Your task to perform on an android device: toggle improve location accuracy Image 0: 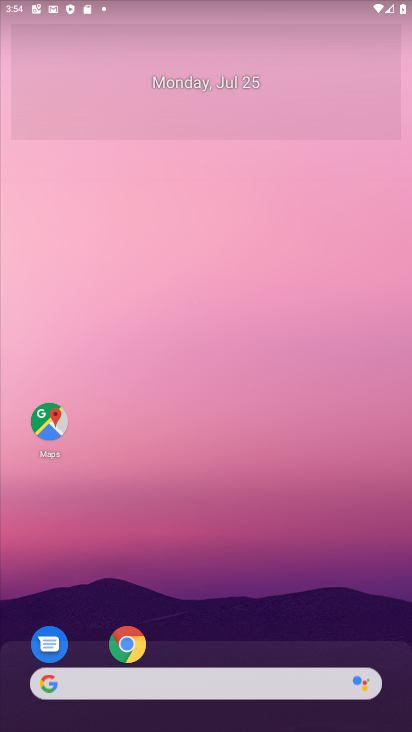
Step 0: press home button
Your task to perform on an android device: toggle improve location accuracy Image 1: 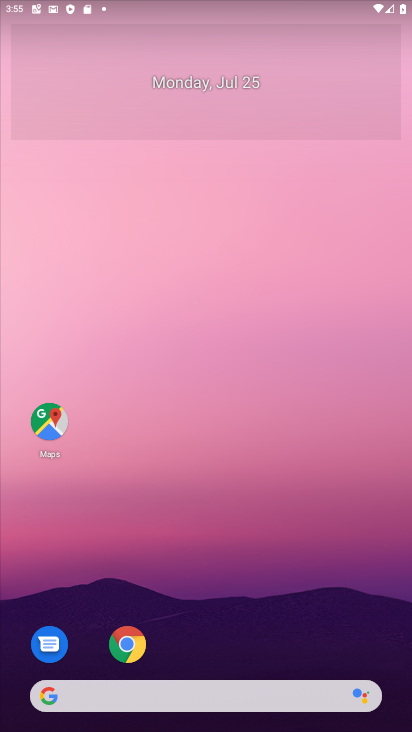
Step 1: drag from (241, 652) to (237, 69)
Your task to perform on an android device: toggle improve location accuracy Image 2: 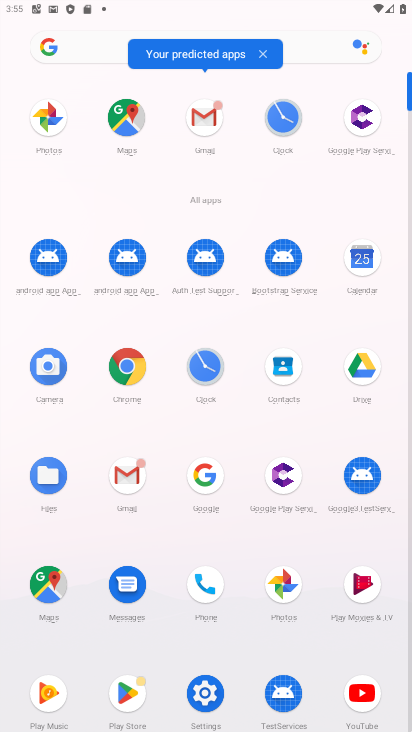
Step 2: click (206, 684)
Your task to perform on an android device: toggle improve location accuracy Image 3: 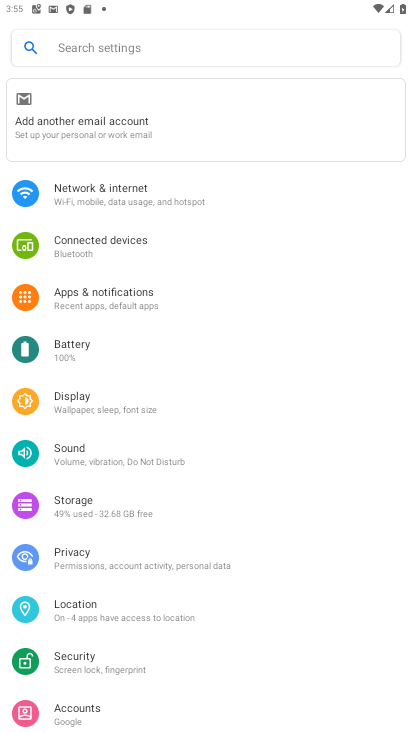
Step 3: click (100, 610)
Your task to perform on an android device: toggle improve location accuracy Image 4: 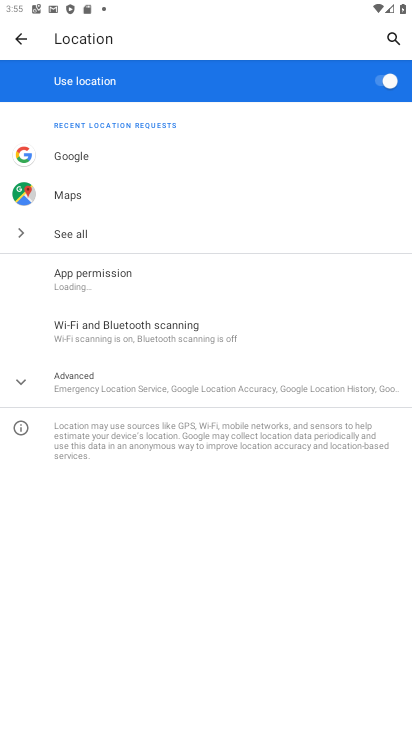
Step 4: click (20, 381)
Your task to perform on an android device: toggle improve location accuracy Image 5: 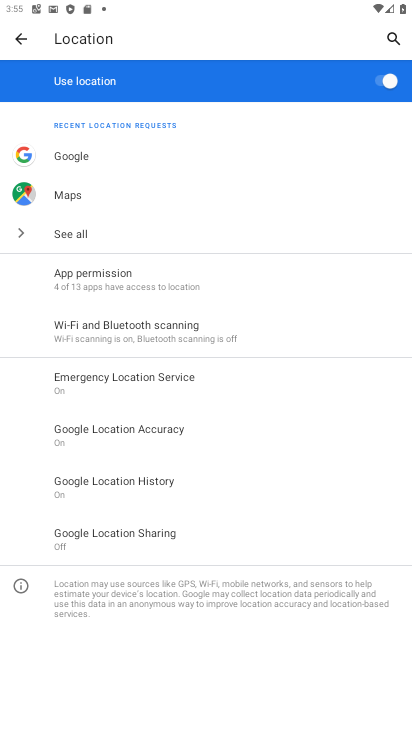
Step 5: click (124, 433)
Your task to perform on an android device: toggle improve location accuracy Image 6: 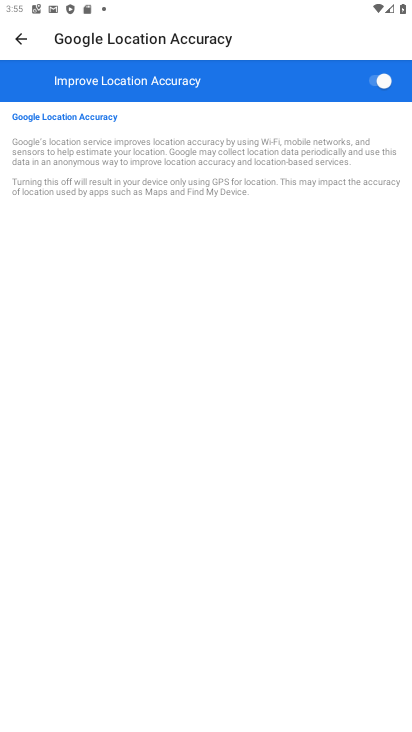
Step 6: click (378, 79)
Your task to perform on an android device: toggle improve location accuracy Image 7: 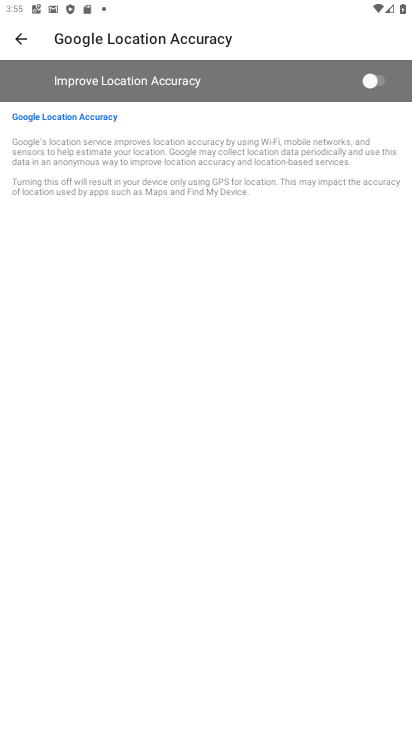
Step 7: task complete